Your task to perform on an android device: turn vacation reply on in the gmail app Image 0: 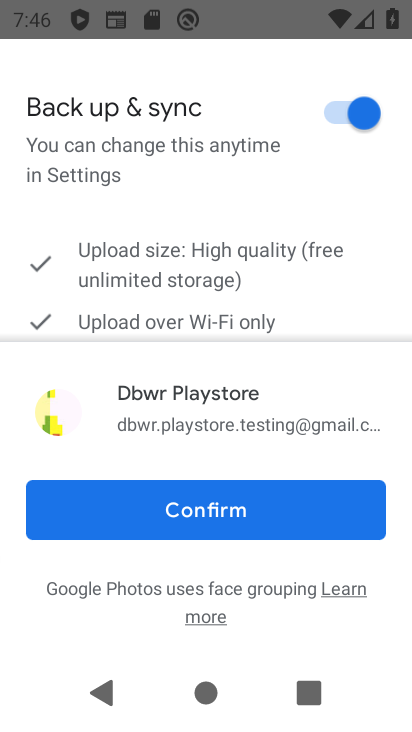
Step 0: press home button
Your task to perform on an android device: turn vacation reply on in the gmail app Image 1: 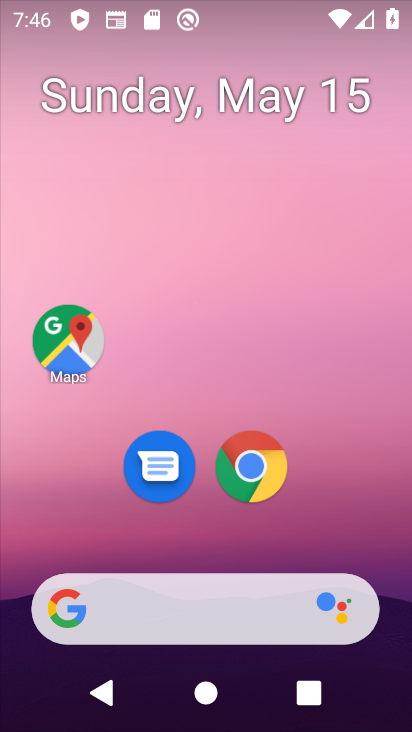
Step 1: drag from (204, 541) to (186, 11)
Your task to perform on an android device: turn vacation reply on in the gmail app Image 2: 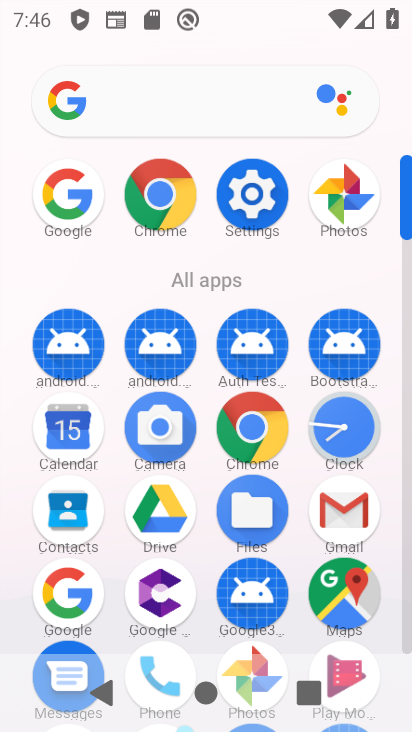
Step 2: click (363, 512)
Your task to perform on an android device: turn vacation reply on in the gmail app Image 3: 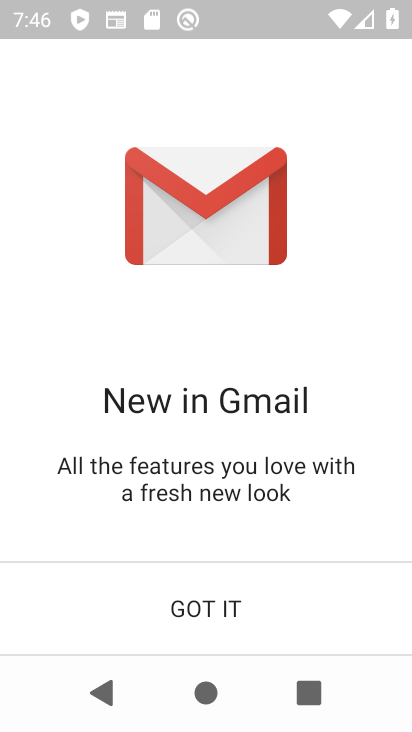
Step 3: click (147, 629)
Your task to perform on an android device: turn vacation reply on in the gmail app Image 4: 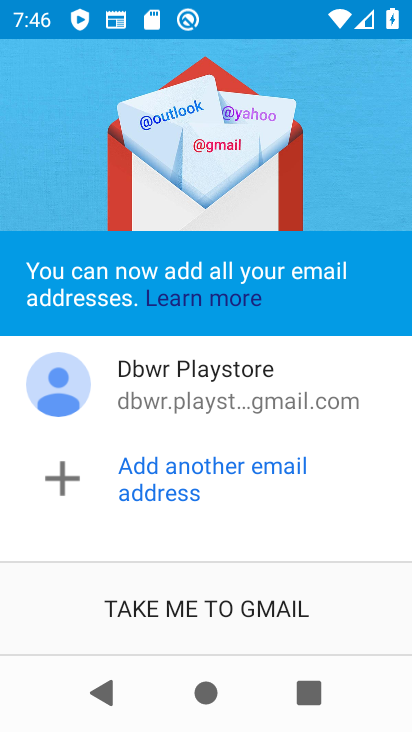
Step 4: click (199, 592)
Your task to perform on an android device: turn vacation reply on in the gmail app Image 5: 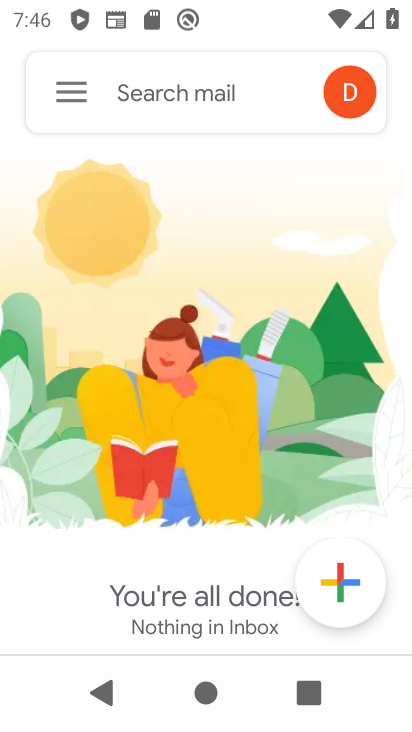
Step 5: click (72, 94)
Your task to perform on an android device: turn vacation reply on in the gmail app Image 6: 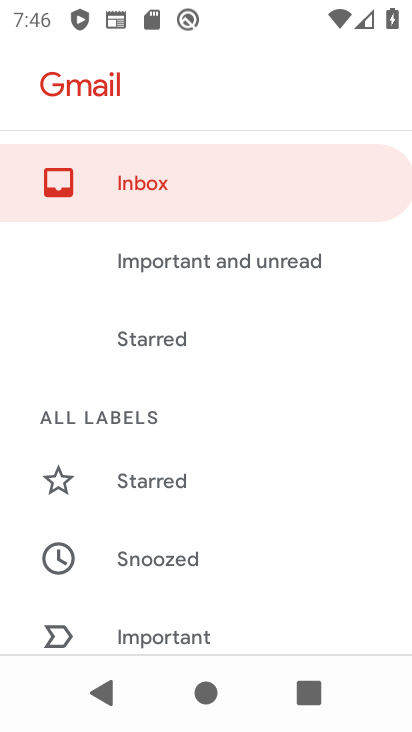
Step 6: drag from (183, 563) to (141, 82)
Your task to perform on an android device: turn vacation reply on in the gmail app Image 7: 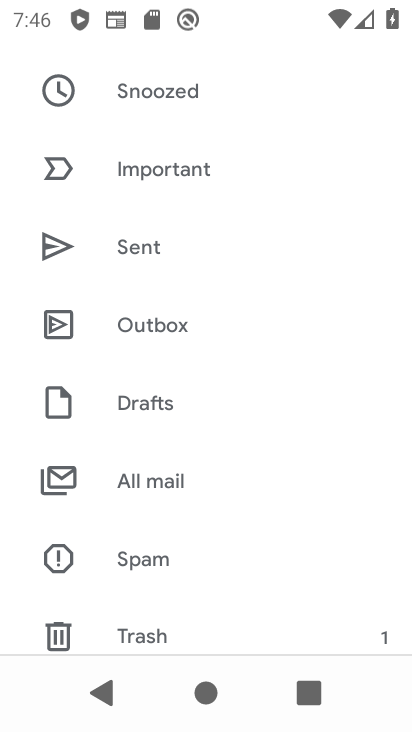
Step 7: drag from (172, 401) to (147, 14)
Your task to perform on an android device: turn vacation reply on in the gmail app Image 8: 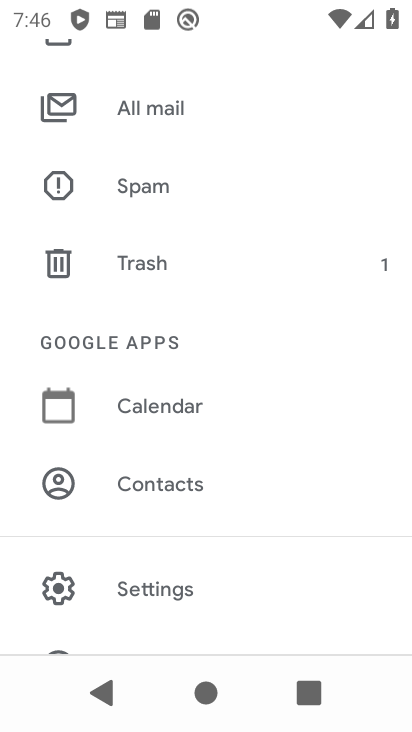
Step 8: click (139, 579)
Your task to perform on an android device: turn vacation reply on in the gmail app Image 9: 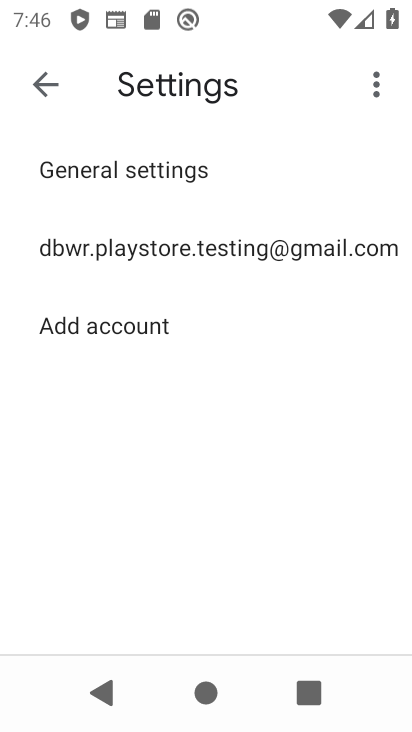
Step 9: click (135, 230)
Your task to perform on an android device: turn vacation reply on in the gmail app Image 10: 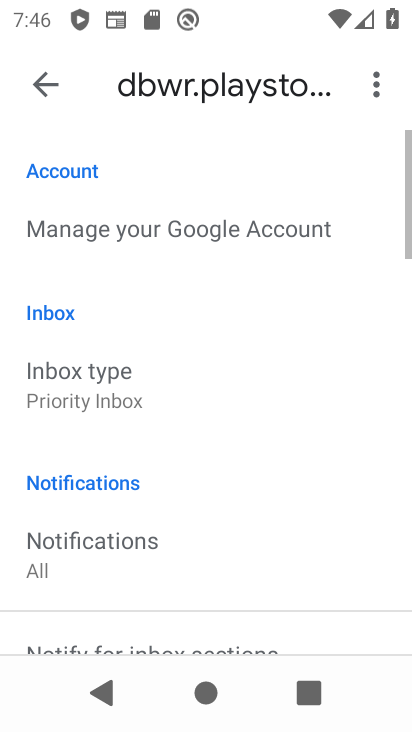
Step 10: drag from (254, 566) to (223, 5)
Your task to perform on an android device: turn vacation reply on in the gmail app Image 11: 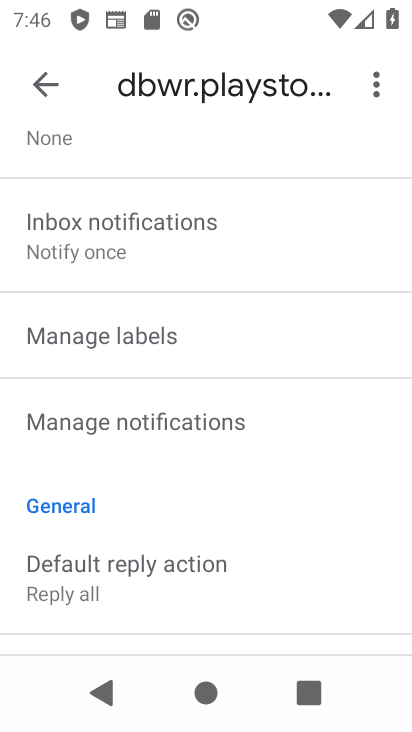
Step 11: drag from (314, 569) to (293, 1)
Your task to perform on an android device: turn vacation reply on in the gmail app Image 12: 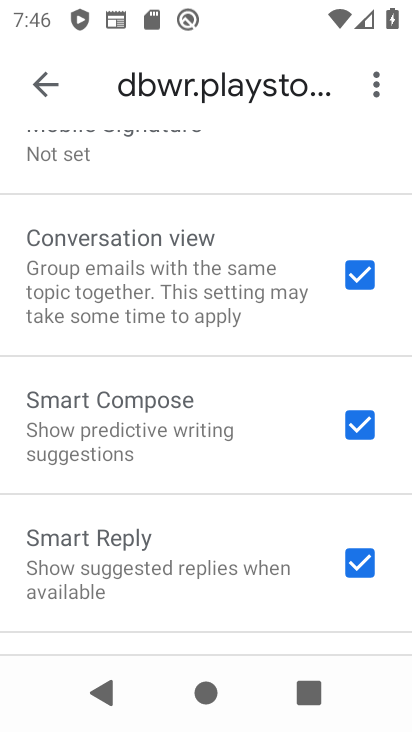
Step 12: drag from (270, 512) to (273, 127)
Your task to perform on an android device: turn vacation reply on in the gmail app Image 13: 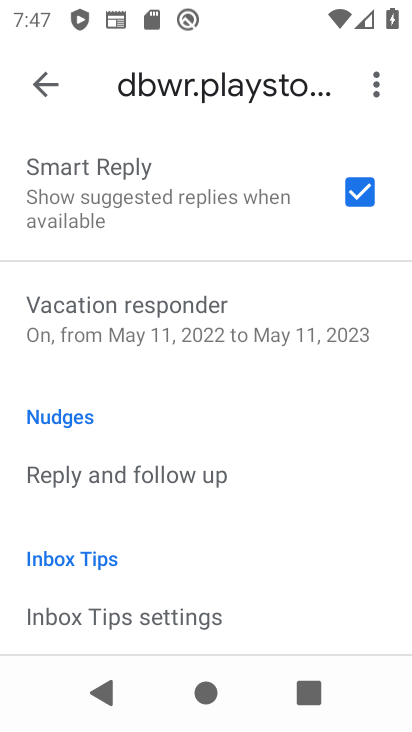
Step 13: click (190, 293)
Your task to perform on an android device: turn vacation reply on in the gmail app Image 14: 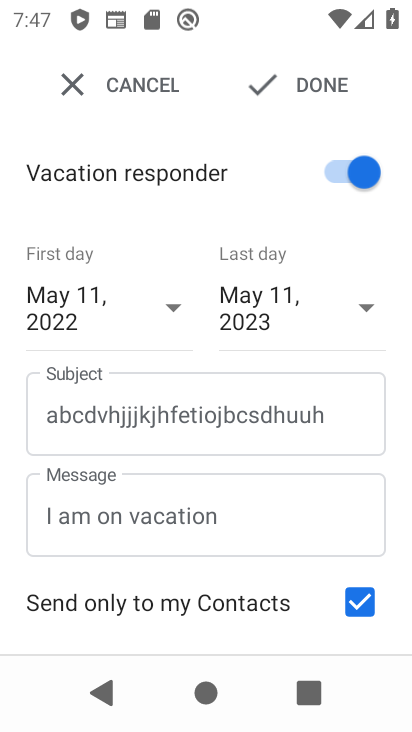
Step 14: click (308, 86)
Your task to perform on an android device: turn vacation reply on in the gmail app Image 15: 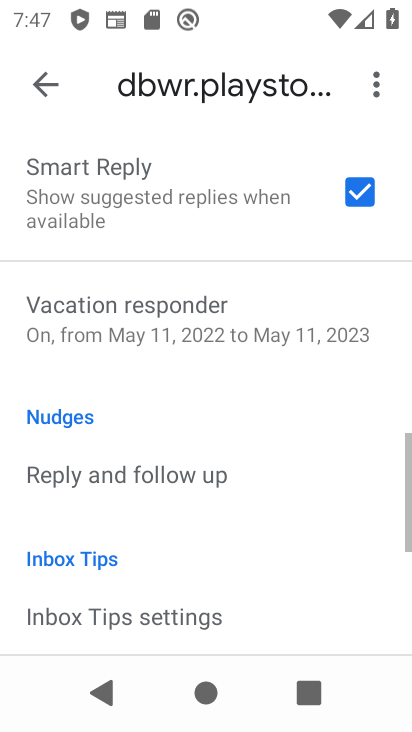
Step 15: task complete